Your task to perform on an android device: Do I have any events today? Image 0: 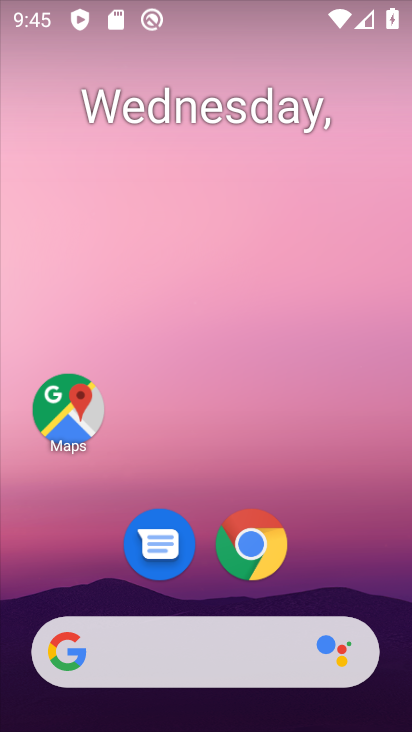
Step 0: drag from (209, 480) to (189, 178)
Your task to perform on an android device: Do I have any events today? Image 1: 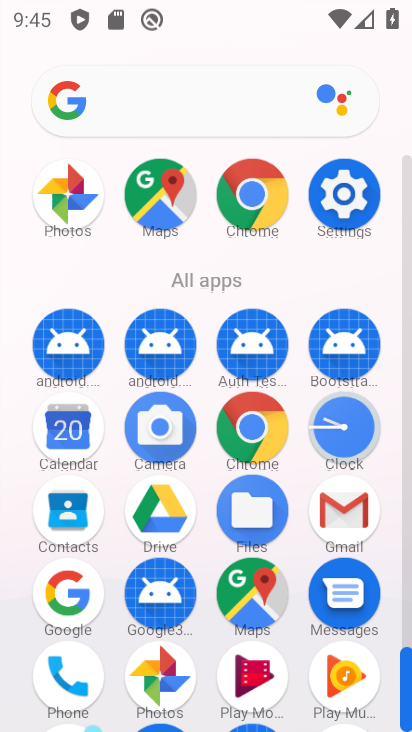
Step 1: click (64, 441)
Your task to perform on an android device: Do I have any events today? Image 2: 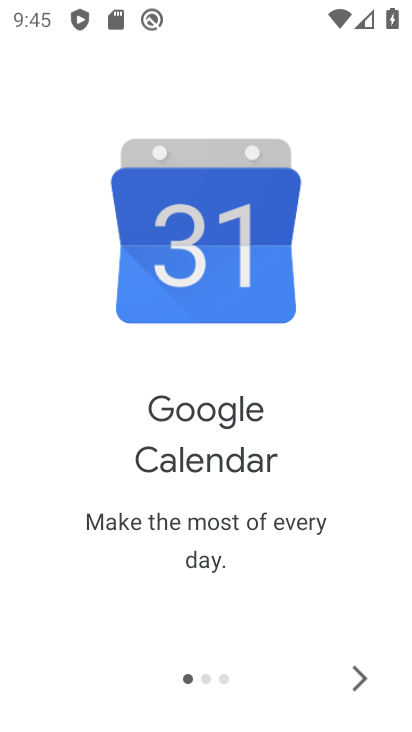
Step 2: click (353, 677)
Your task to perform on an android device: Do I have any events today? Image 3: 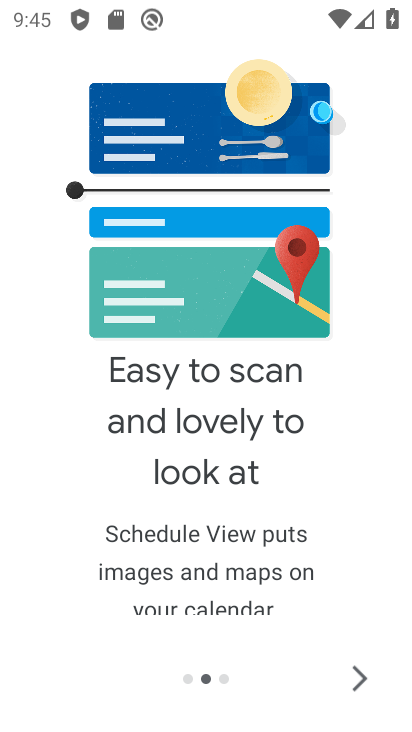
Step 3: click (353, 677)
Your task to perform on an android device: Do I have any events today? Image 4: 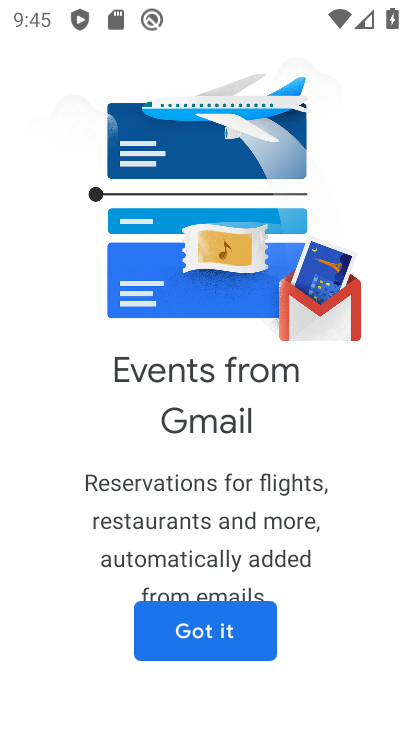
Step 4: click (203, 637)
Your task to perform on an android device: Do I have any events today? Image 5: 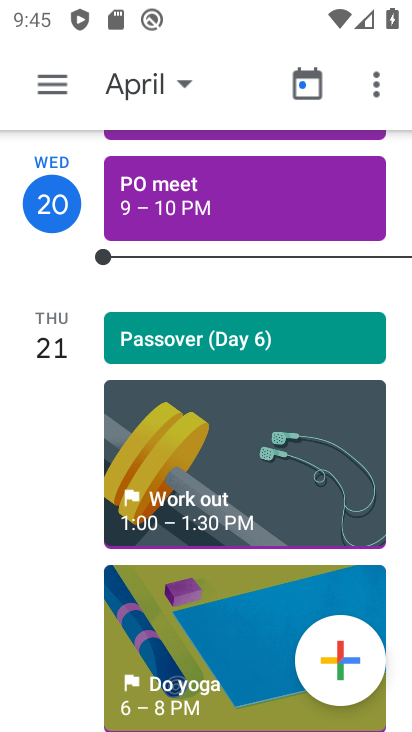
Step 5: click (50, 83)
Your task to perform on an android device: Do I have any events today? Image 6: 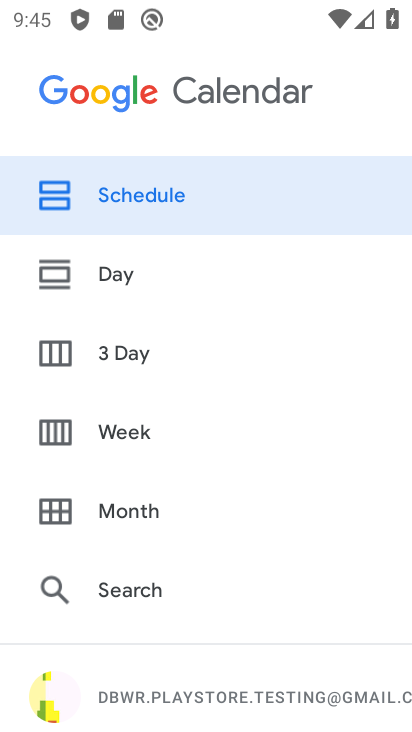
Step 6: drag from (214, 666) to (225, 228)
Your task to perform on an android device: Do I have any events today? Image 7: 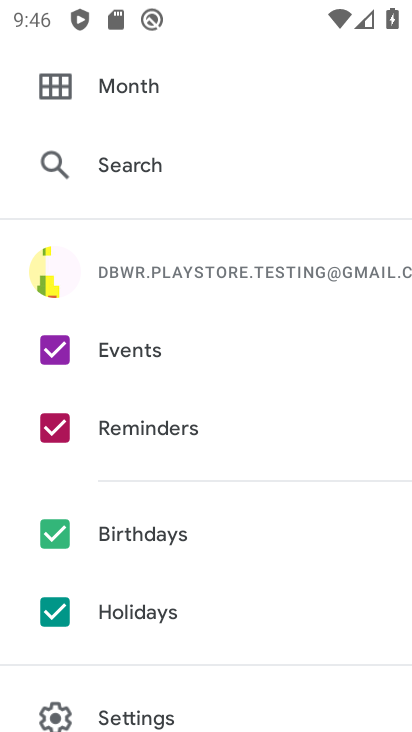
Step 7: click (61, 607)
Your task to perform on an android device: Do I have any events today? Image 8: 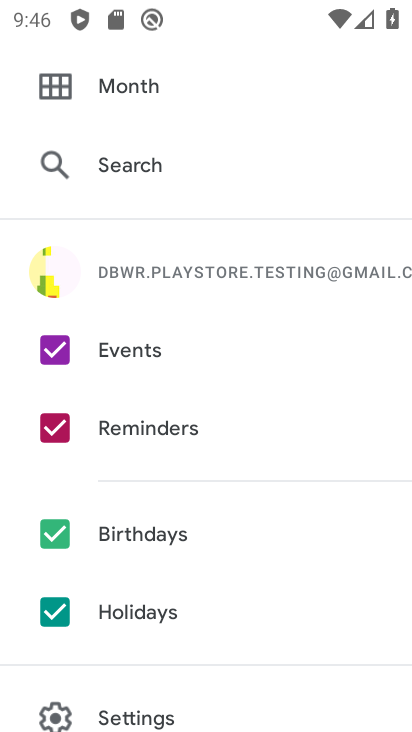
Step 8: click (53, 614)
Your task to perform on an android device: Do I have any events today? Image 9: 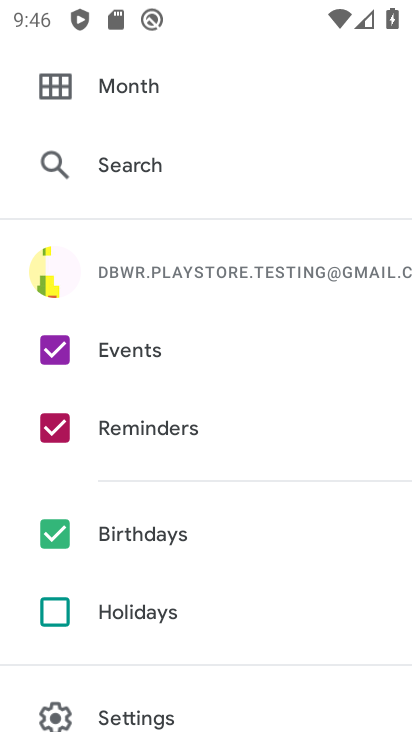
Step 9: click (48, 533)
Your task to perform on an android device: Do I have any events today? Image 10: 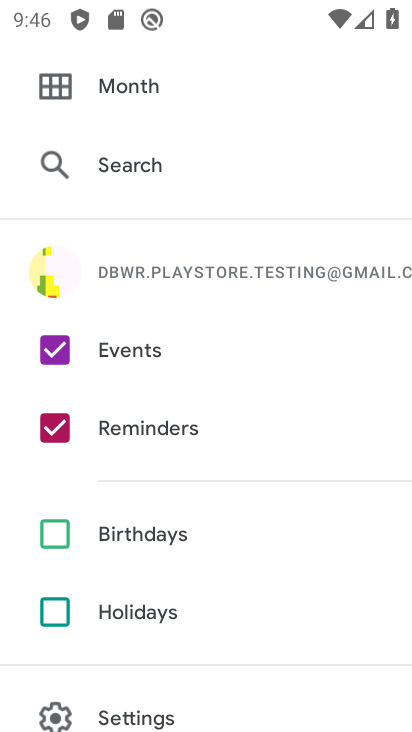
Step 10: click (59, 430)
Your task to perform on an android device: Do I have any events today? Image 11: 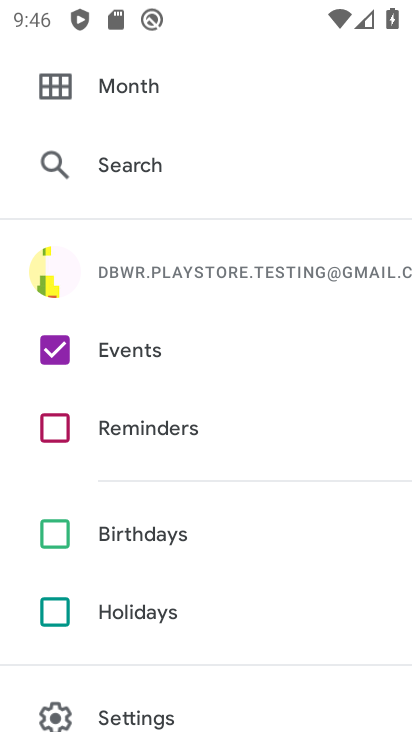
Step 11: drag from (252, 109) to (246, 613)
Your task to perform on an android device: Do I have any events today? Image 12: 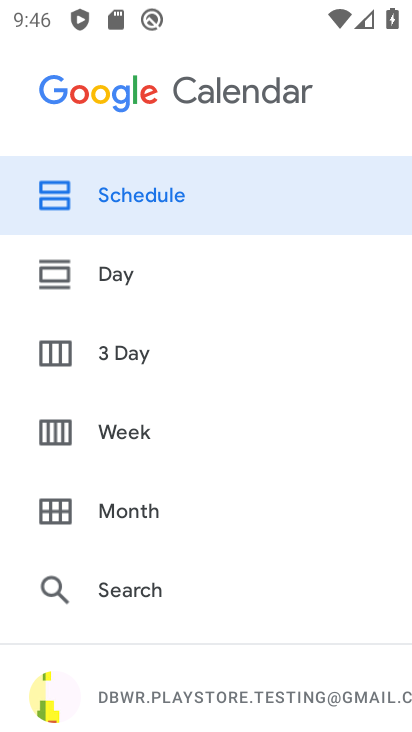
Step 12: click (203, 195)
Your task to perform on an android device: Do I have any events today? Image 13: 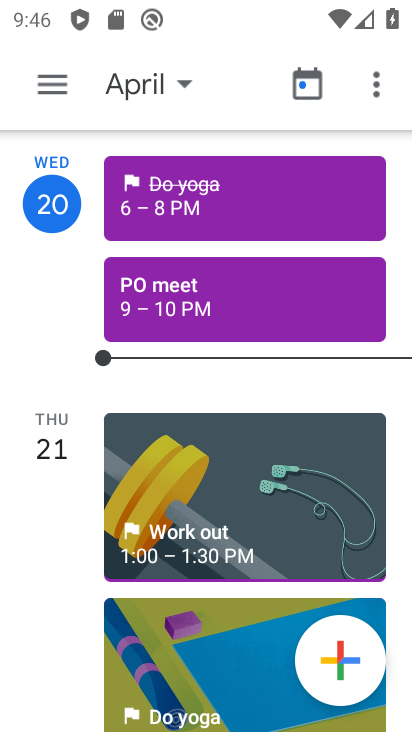
Step 13: task complete